Your task to perform on an android device: see sites visited before in the chrome app Image 0: 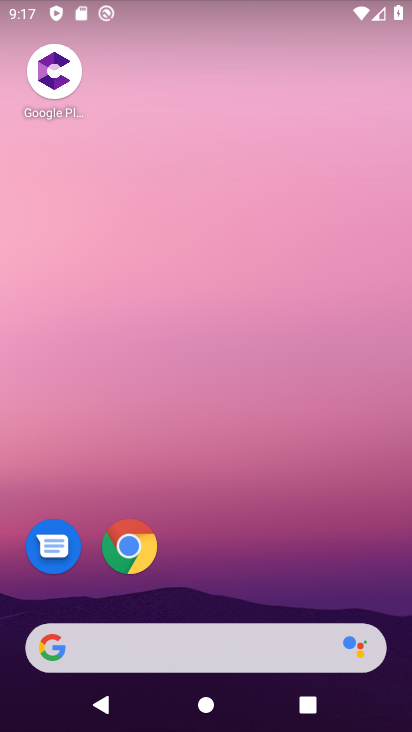
Step 0: press home button
Your task to perform on an android device: see sites visited before in the chrome app Image 1: 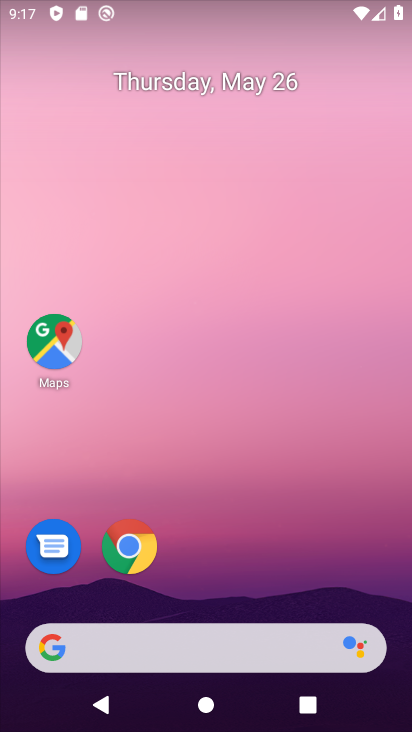
Step 1: drag from (314, 601) to (303, 119)
Your task to perform on an android device: see sites visited before in the chrome app Image 2: 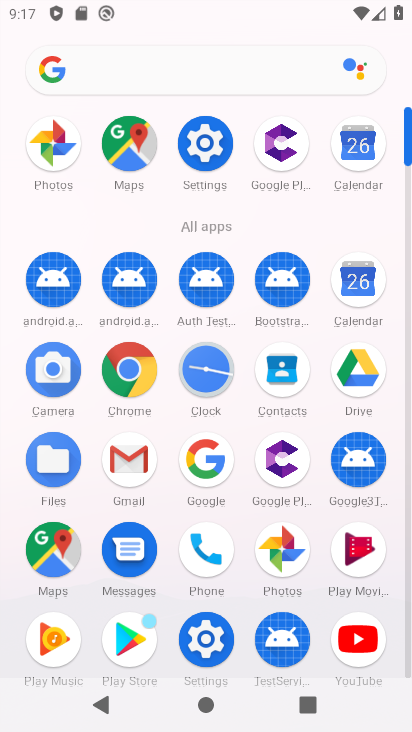
Step 2: click (143, 378)
Your task to perform on an android device: see sites visited before in the chrome app Image 3: 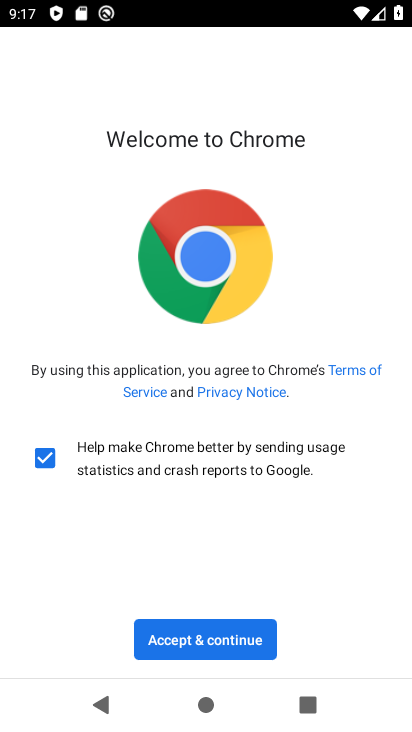
Step 3: click (192, 646)
Your task to perform on an android device: see sites visited before in the chrome app Image 4: 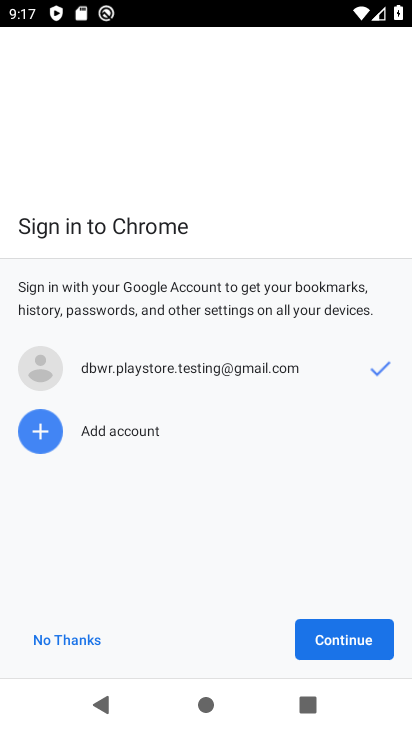
Step 4: click (356, 643)
Your task to perform on an android device: see sites visited before in the chrome app Image 5: 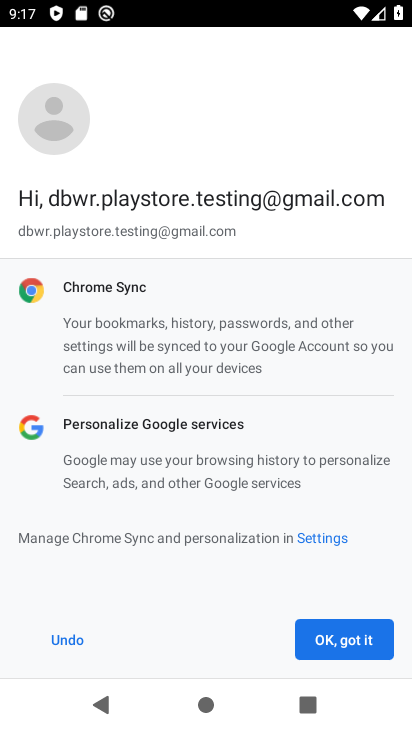
Step 5: click (356, 643)
Your task to perform on an android device: see sites visited before in the chrome app Image 6: 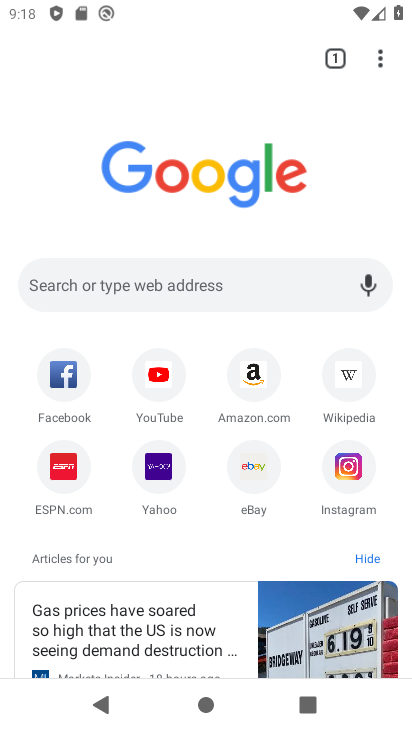
Step 6: task complete